Your task to perform on an android device: Toggle the flashlight Image 0: 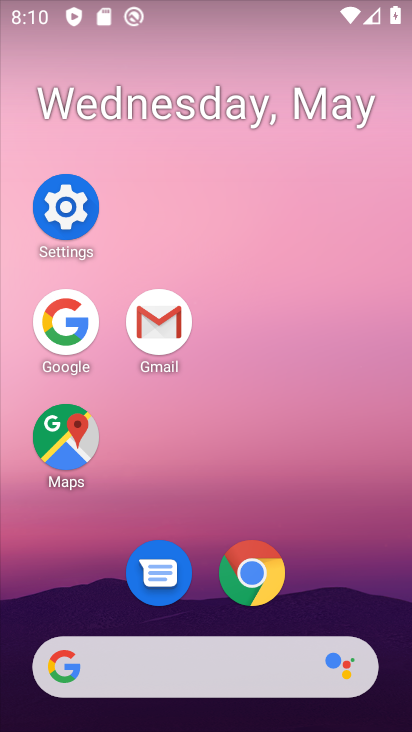
Step 0: drag from (274, 10) to (273, 532)
Your task to perform on an android device: Toggle the flashlight Image 1: 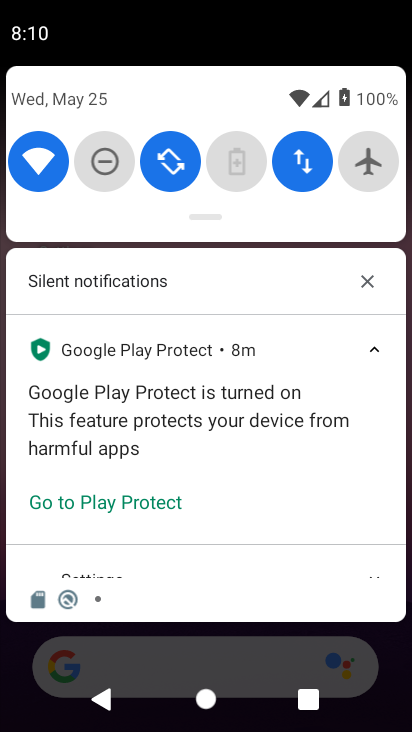
Step 1: task complete